Your task to perform on an android device: Do I have any events today? Image 0: 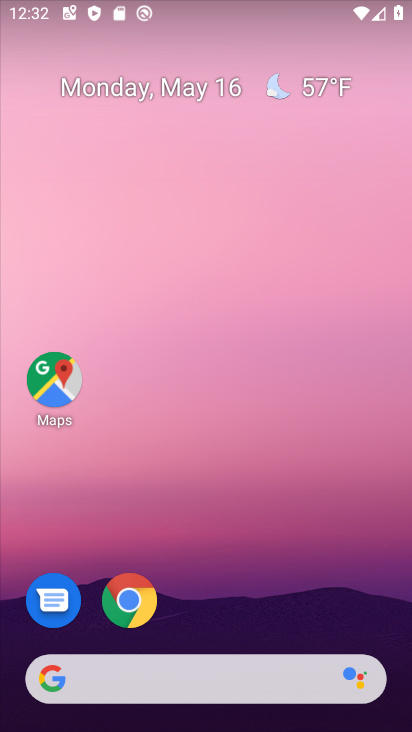
Step 0: drag from (212, 523) to (261, 96)
Your task to perform on an android device: Do I have any events today? Image 1: 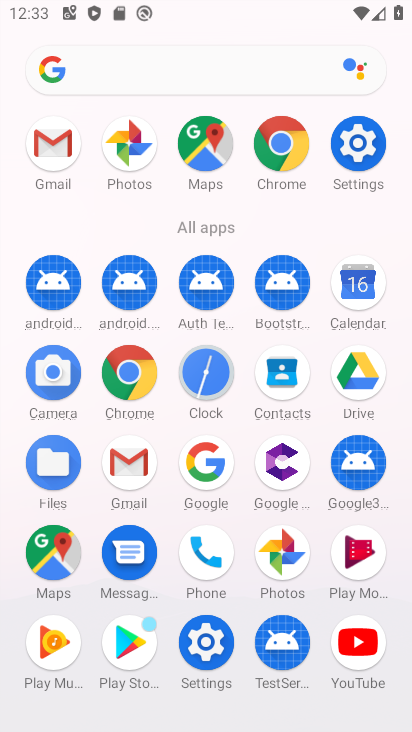
Step 1: click (340, 292)
Your task to perform on an android device: Do I have any events today? Image 2: 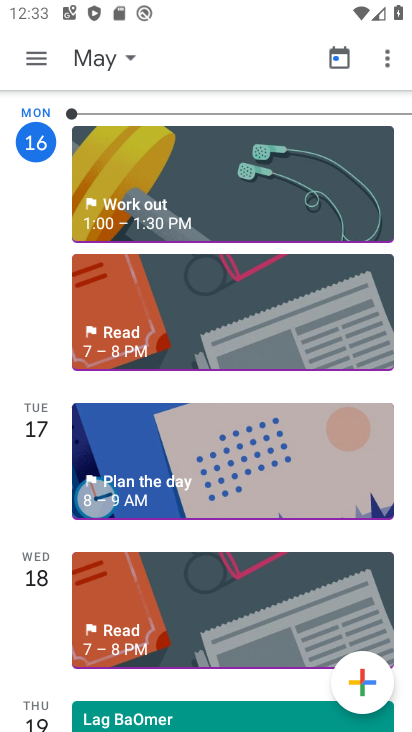
Step 2: click (160, 188)
Your task to perform on an android device: Do I have any events today? Image 3: 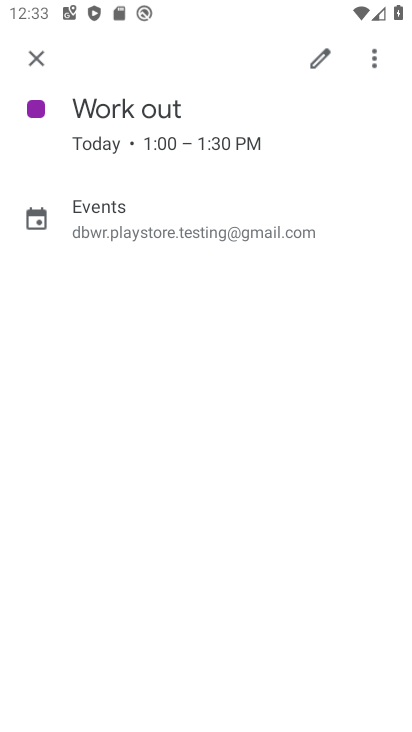
Step 3: task complete